Your task to perform on an android device: Open internet settings Image 0: 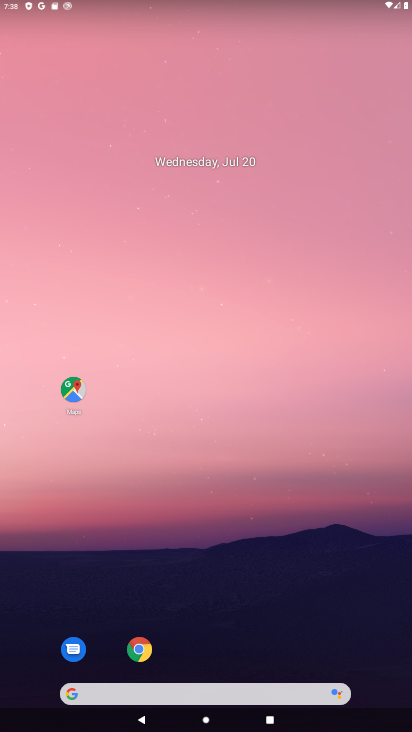
Step 0: drag from (227, 651) to (110, 100)
Your task to perform on an android device: Open internet settings Image 1: 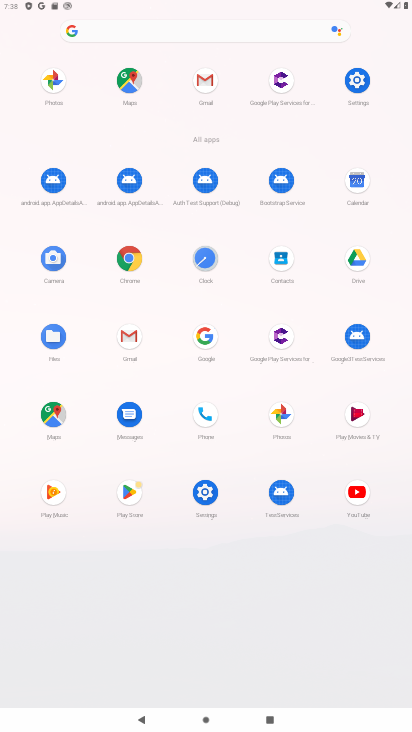
Step 1: click (193, 493)
Your task to perform on an android device: Open internet settings Image 2: 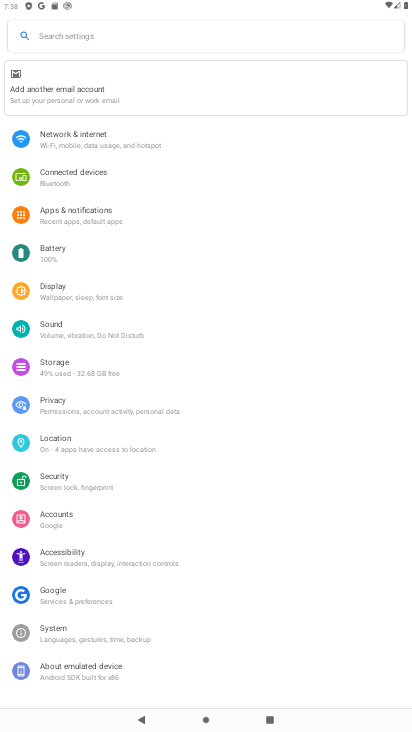
Step 2: click (76, 143)
Your task to perform on an android device: Open internet settings Image 3: 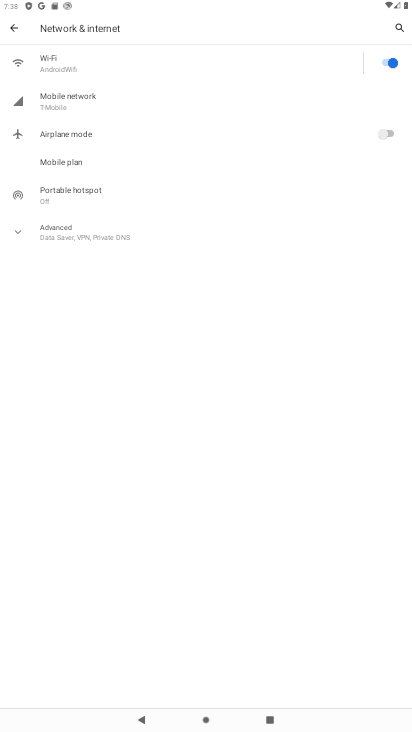
Step 3: click (51, 89)
Your task to perform on an android device: Open internet settings Image 4: 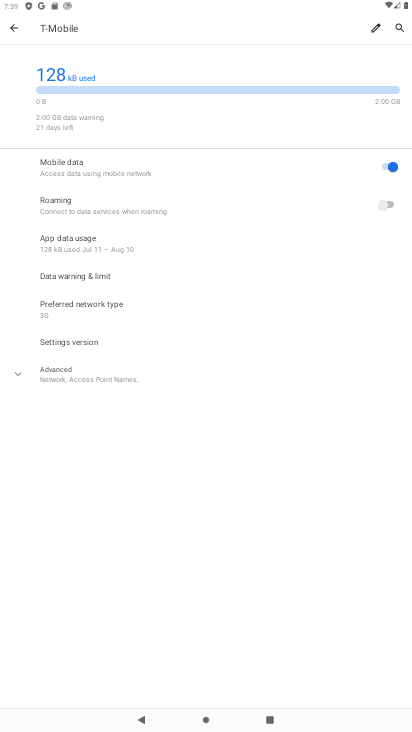
Step 4: task complete